Your task to perform on an android device: Set the phone to "Do not disturb". Image 0: 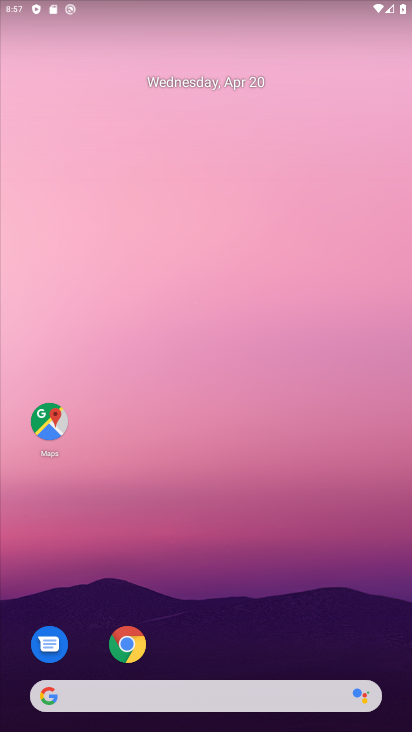
Step 0: drag from (185, 652) to (226, 229)
Your task to perform on an android device: Set the phone to "Do not disturb". Image 1: 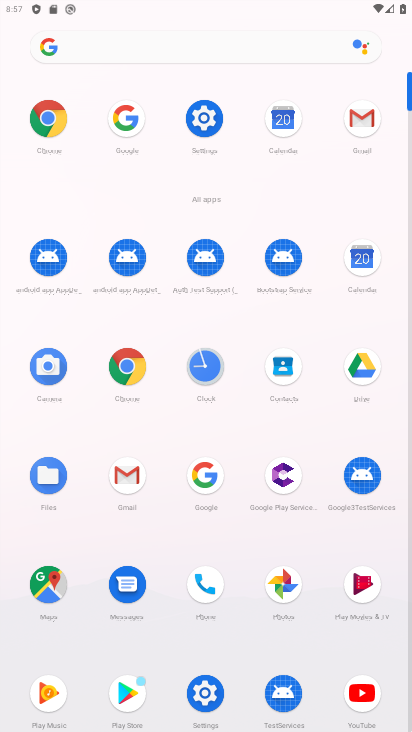
Step 1: click (205, 112)
Your task to perform on an android device: Set the phone to "Do not disturb". Image 2: 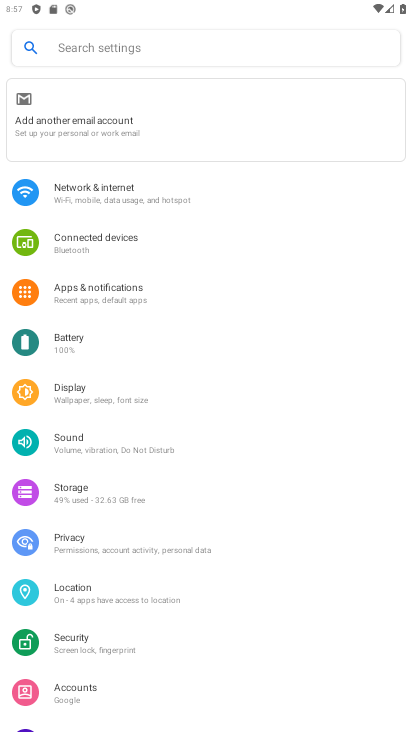
Step 2: click (116, 455)
Your task to perform on an android device: Set the phone to "Do not disturb". Image 3: 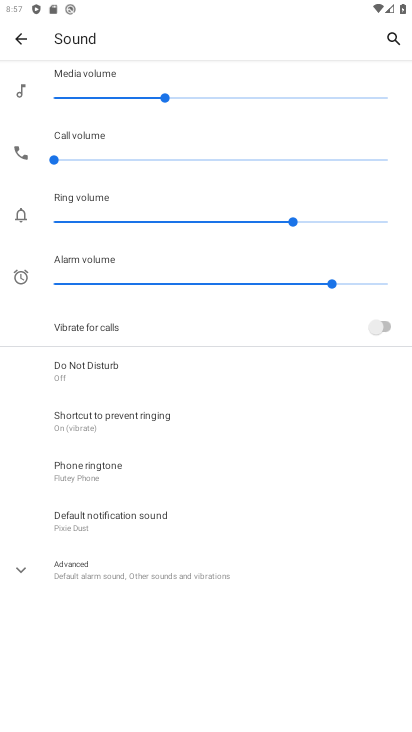
Step 3: click (94, 369)
Your task to perform on an android device: Set the phone to "Do not disturb". Image 4: 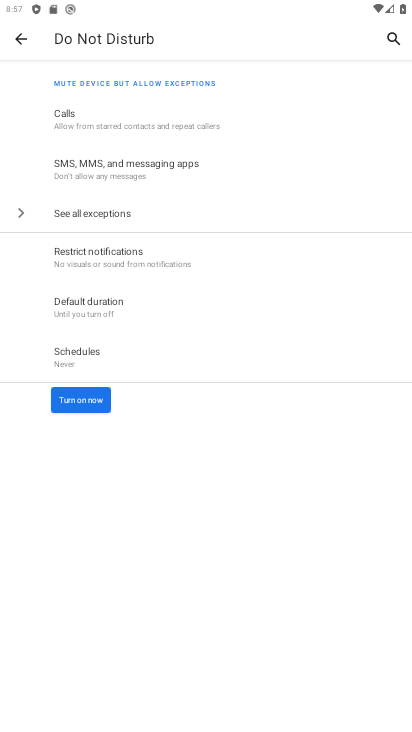
Step 4: click (87, 404)
Your task to perform on an android device: Set the phone to "Do not disturb". Image 5: 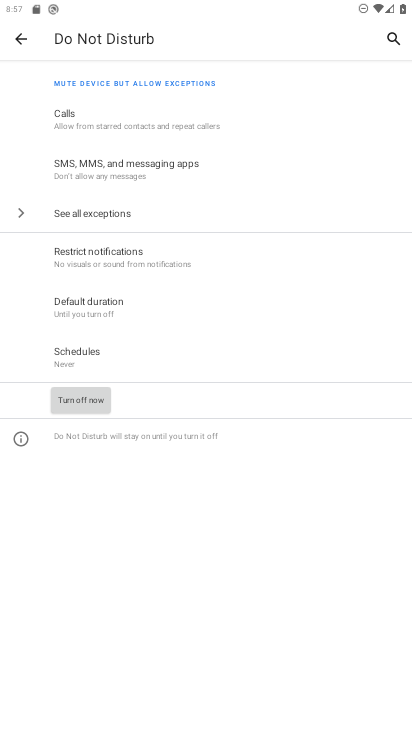
Step 5: task complete